Your task to perform on an android device: Go to settings Image 0: 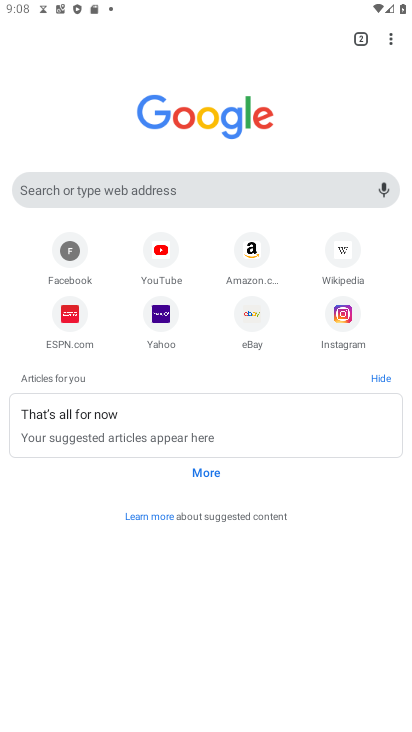
Step 0: press back button
Your task to perform on an android device: Go to settings Image 1: 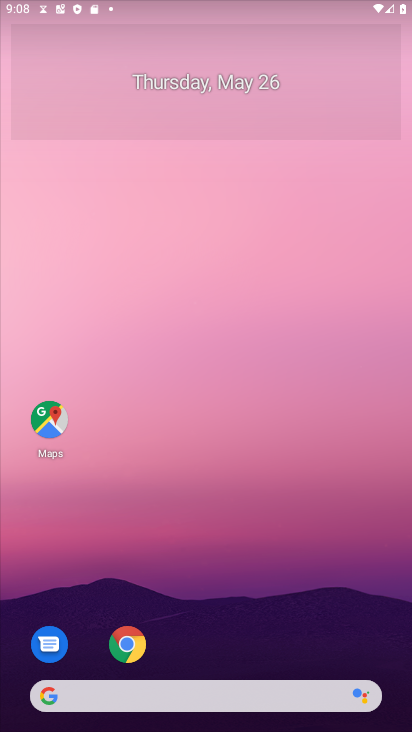
Step 1: drag from (214, 607) to (289, 64)
Your task to perform on an android device: Go to settings Image 2: 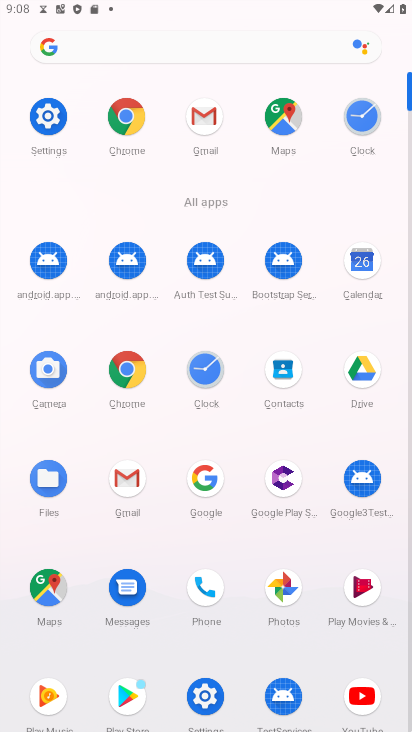
Step 2: click (47, 111)
Your task to perform on an android device: Go to settings Image 3: 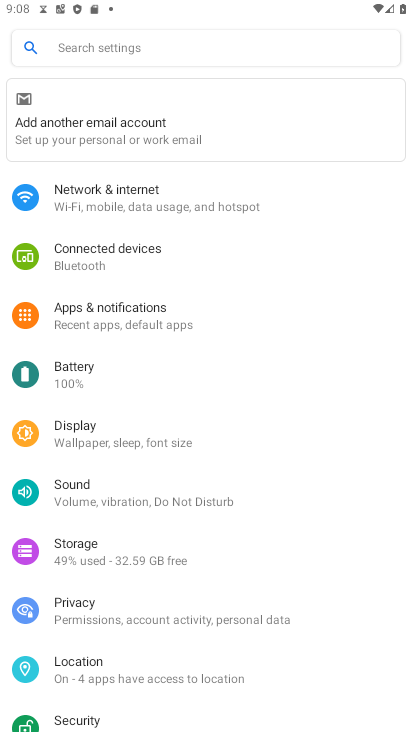
Step 3: task complete